Your task to perform on an android device: Check the weather Image 0: 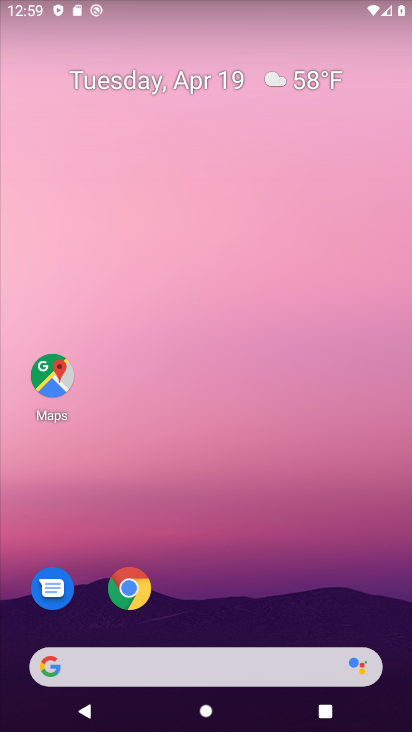
Step 0: drag from (218, 575) to (218, 206)
Your task to perform on an android device: Check the weather Image 1: 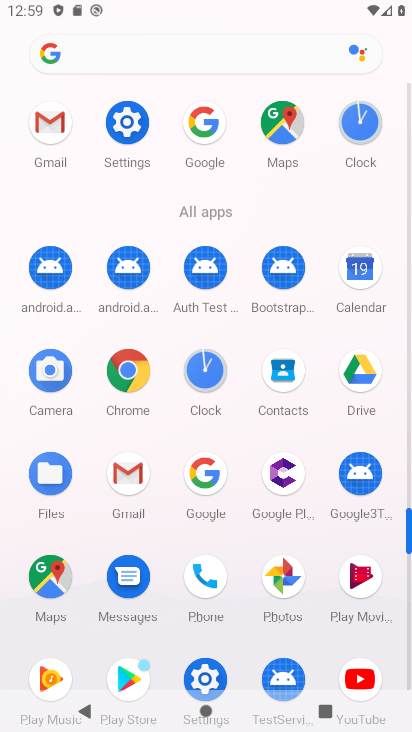
Step 1: click (214, 134)
Your task to perform on an android device: Check the weather Image 2: 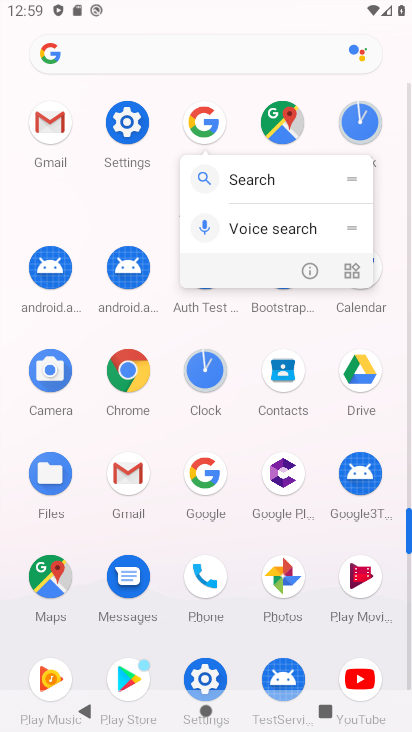
Step 2: click (208, 128)
Your task to perform on an android device: Check the weather Image 3: 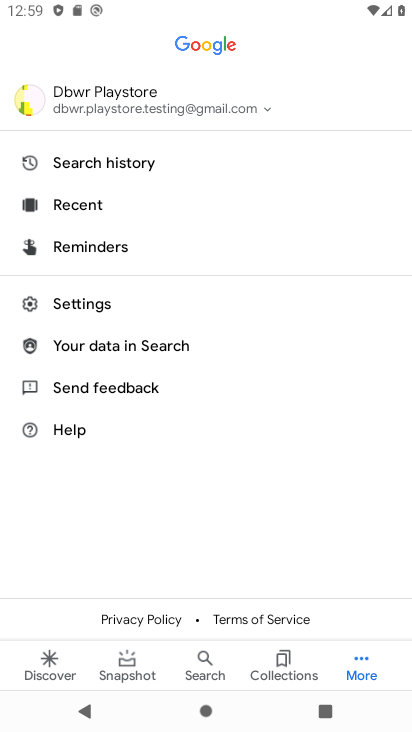
Step 3: click (85, 704)
Your task to perform on an android device: Check the weather Image 4: 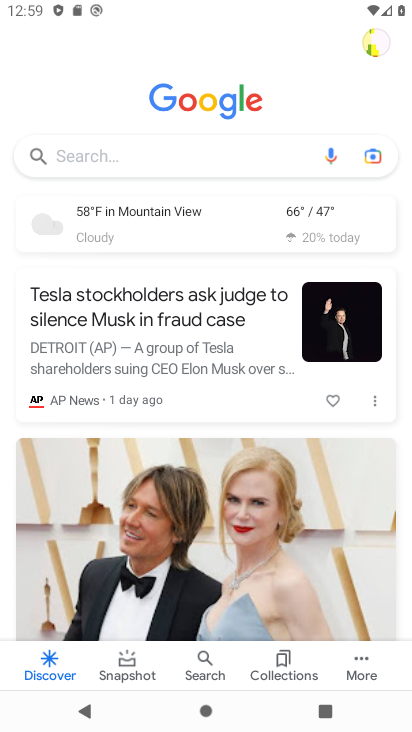
Step 4: click (99, 204)
Your task to perform on an android device: Check the weather Image 5: 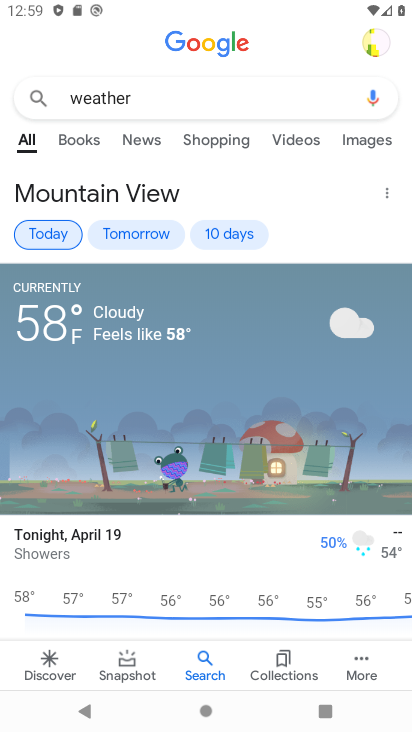
Step 5: task complete